Your task to perform on an android device: toggle notification dots Image 0: 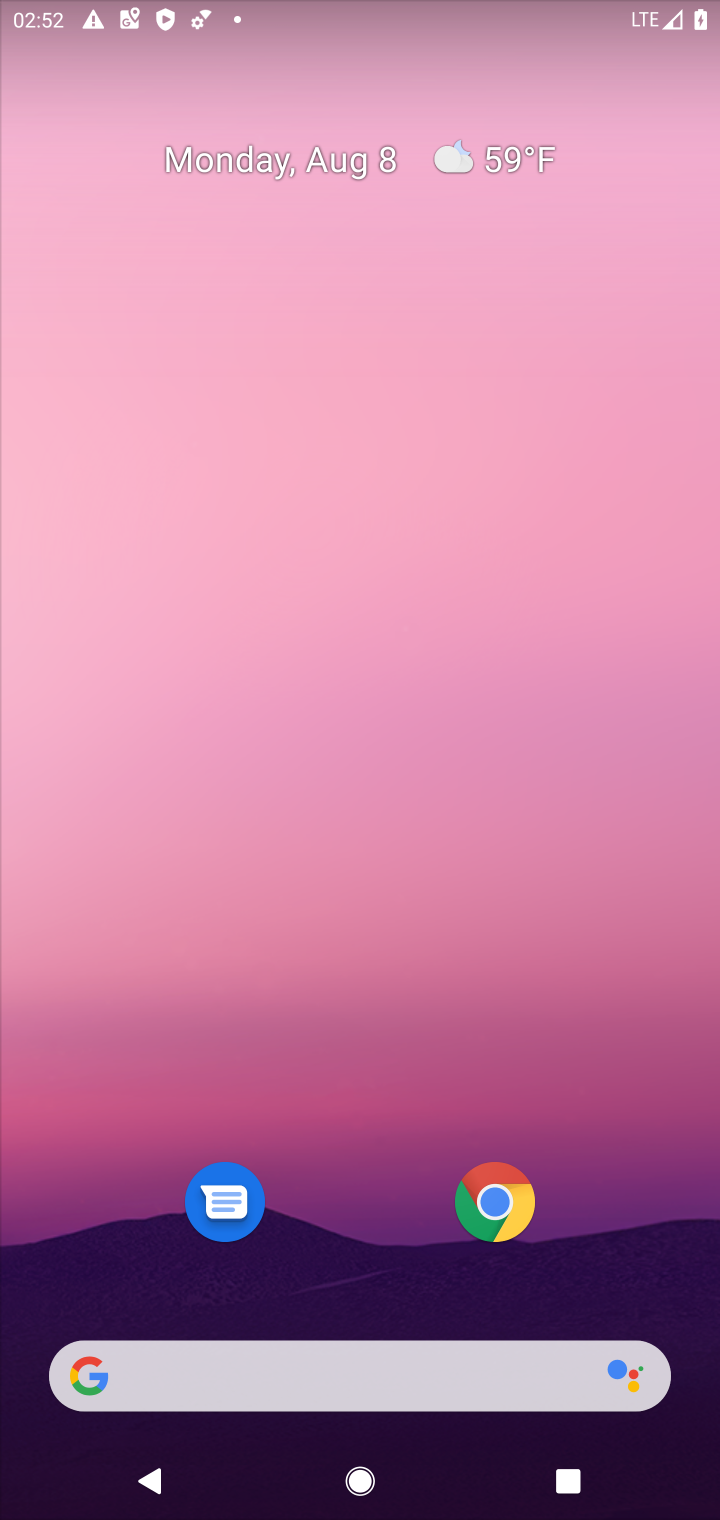
Step 0: drag from (328, 1093) to (384, 366)
Your task to perform on an android device: toggle notification dots Image 1: 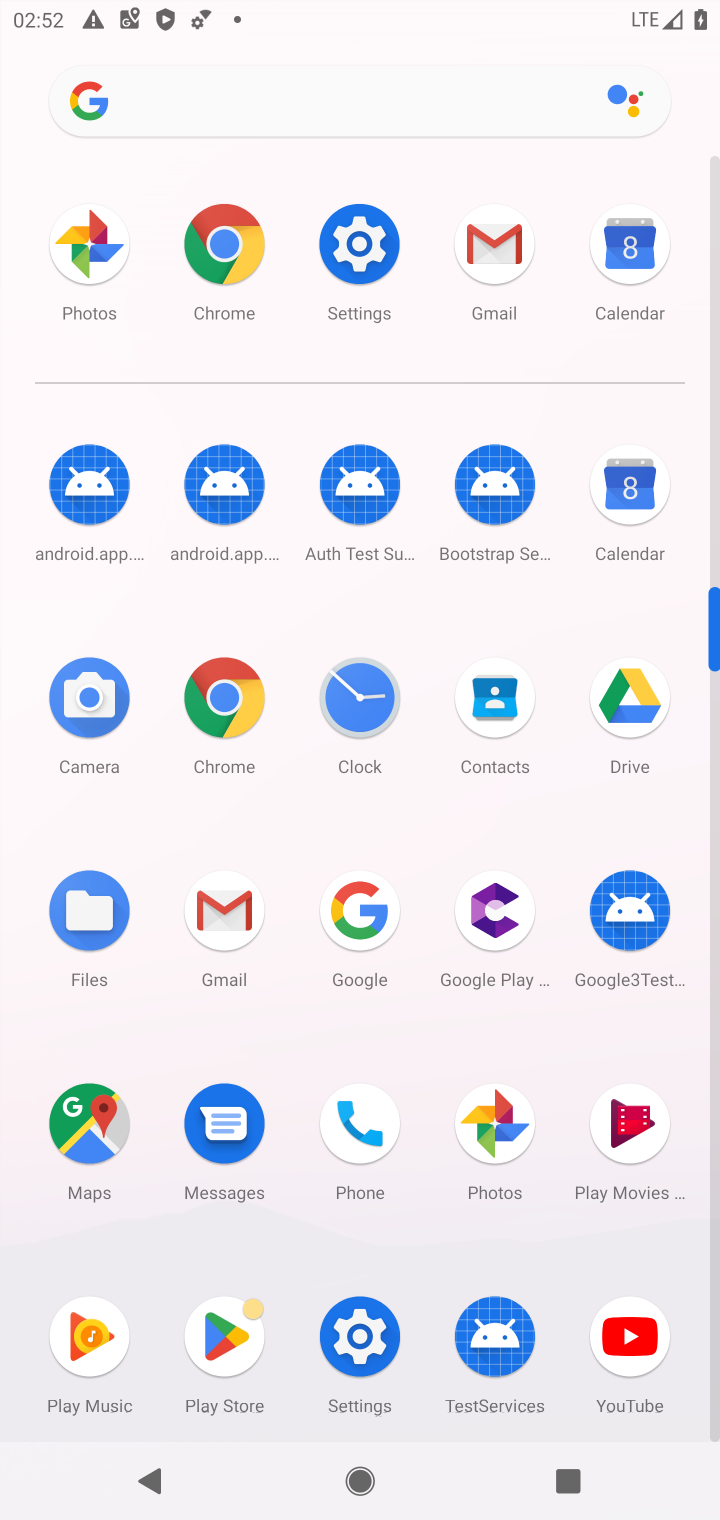
Step 1: click (360, 1330)
Your task to perform on an android device: toggle notification dots Image 2: 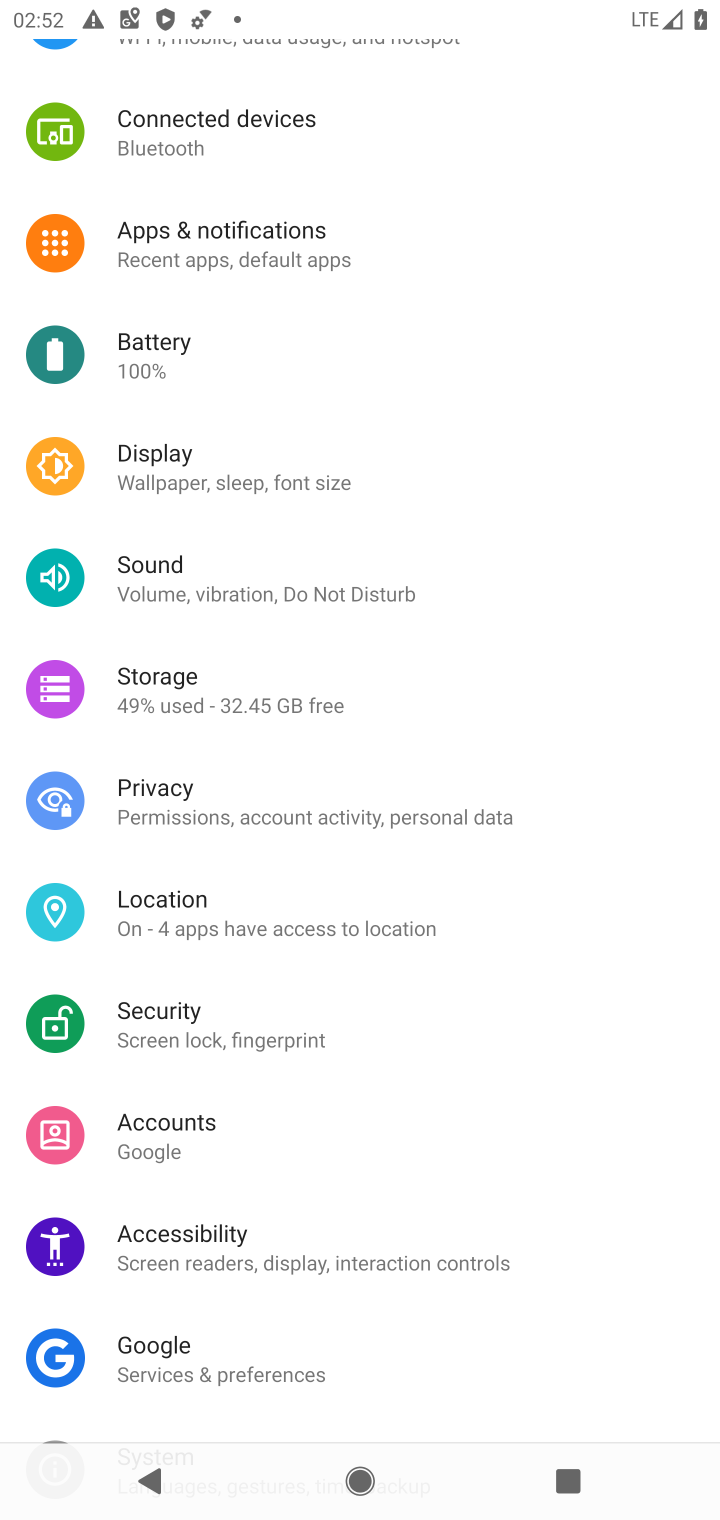
Step 2: click (174, 253)
Your task to perform on an android device: toggle notification dots Image 3: 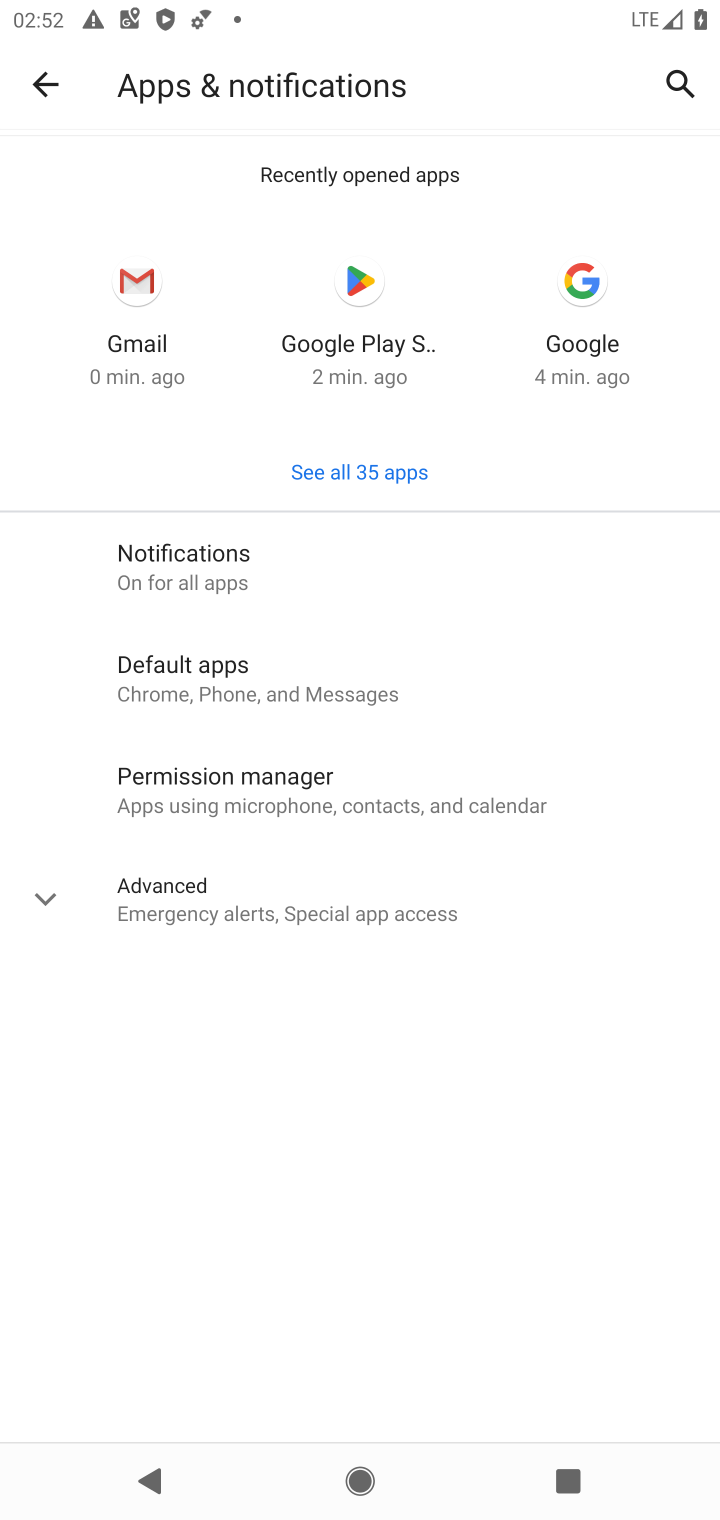
Step 3: click (175, 559)
Your task to perform on an android device: toggle notification dots Image 4: 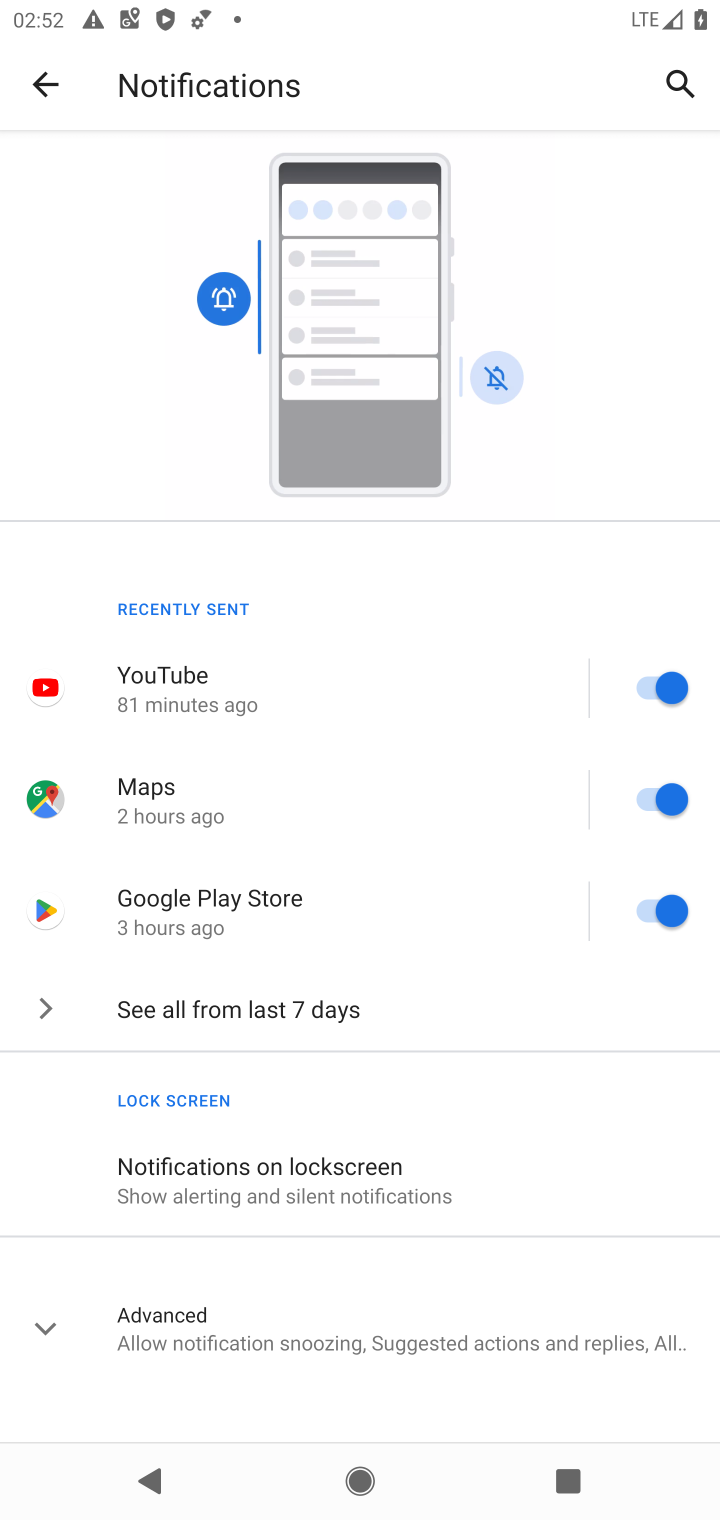
Step 4: click (253, 1326)
Your task to perform on an android device: toggle notification dots Image 5: 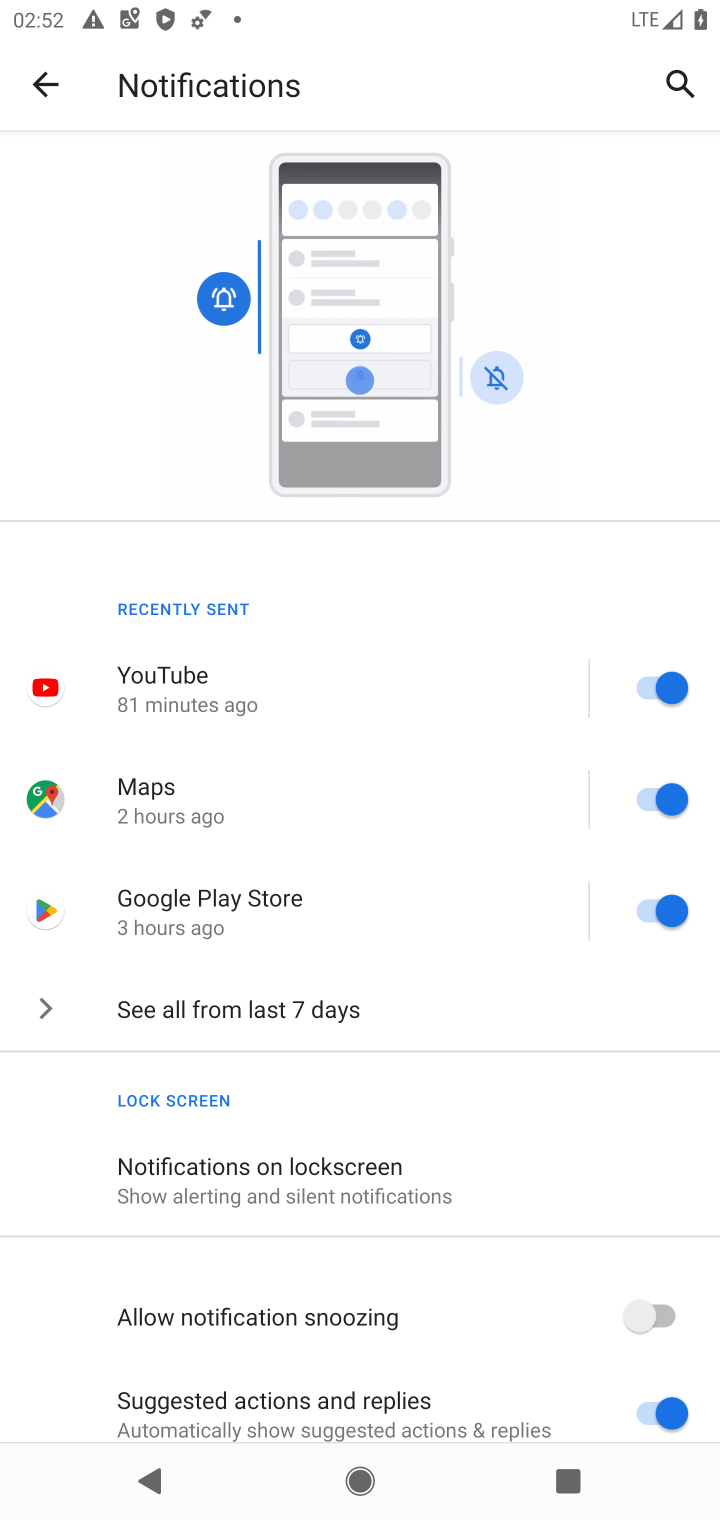
Step 5: drag from (395, 1181) to (395, 972)
Your task to perform on an android device: toggle notification dots Image 6: 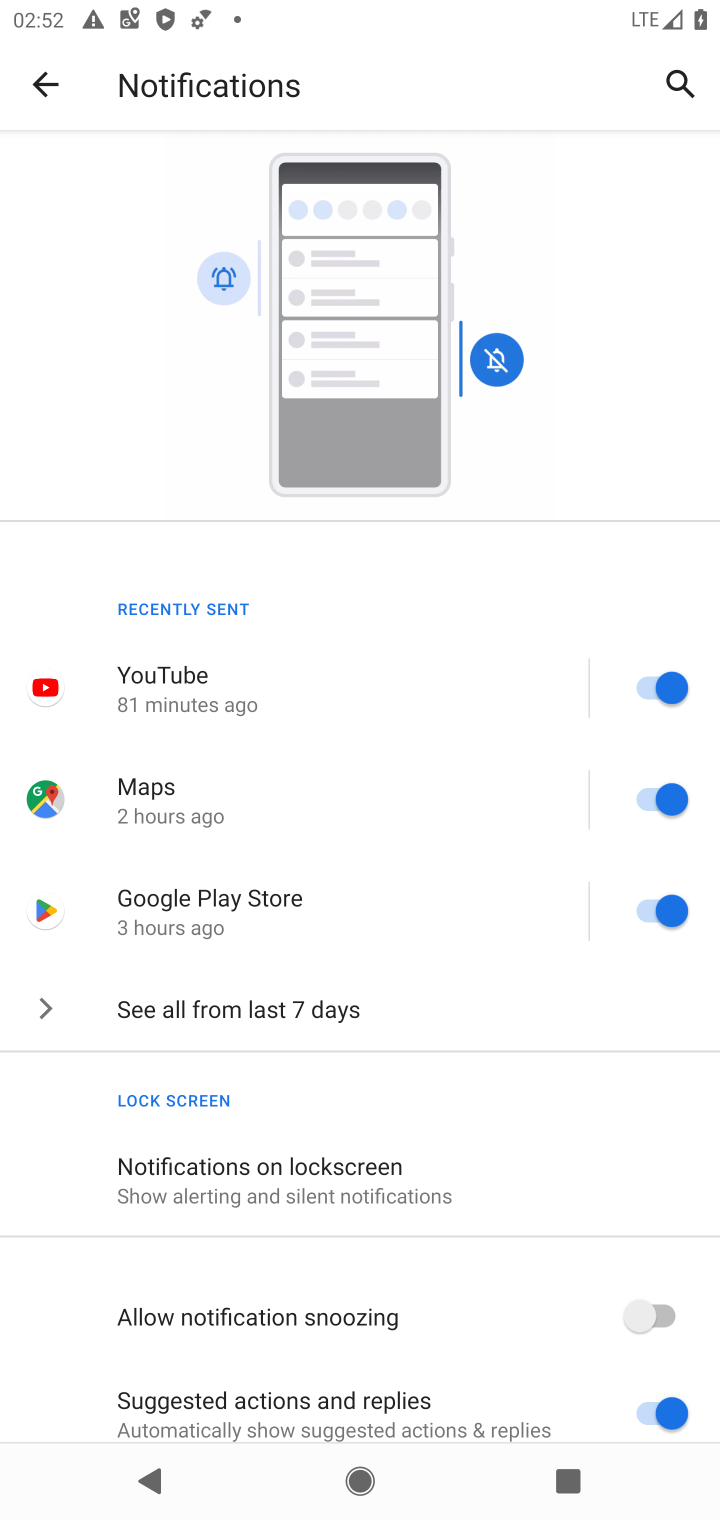
Step 6: drag from (440, 1005) to (464, 922)
Your task to perform on an android device: toggle notification dots Image 7: 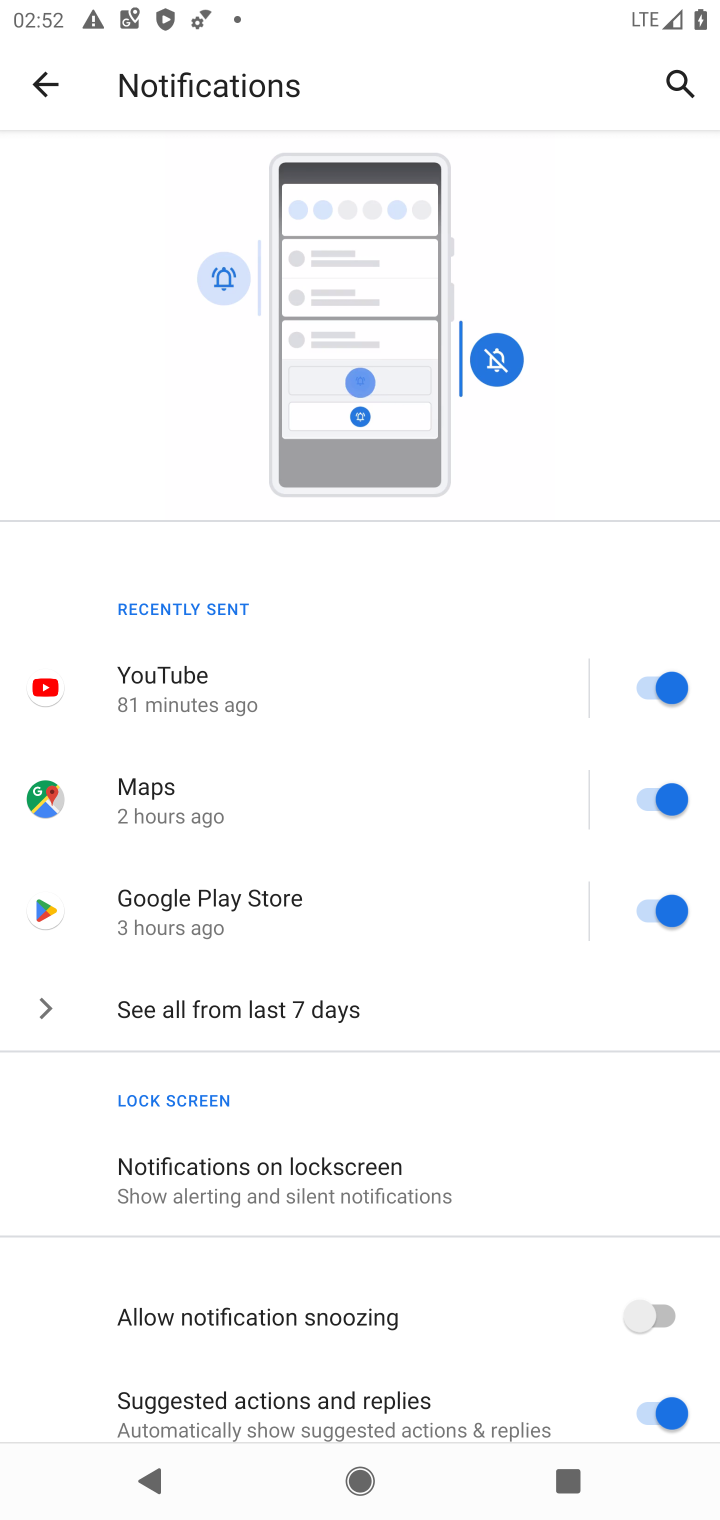
Step 7: drag from (229, 1264) to (293, 736)
Your task to perform on an android device: toggle notification dots Image 8: 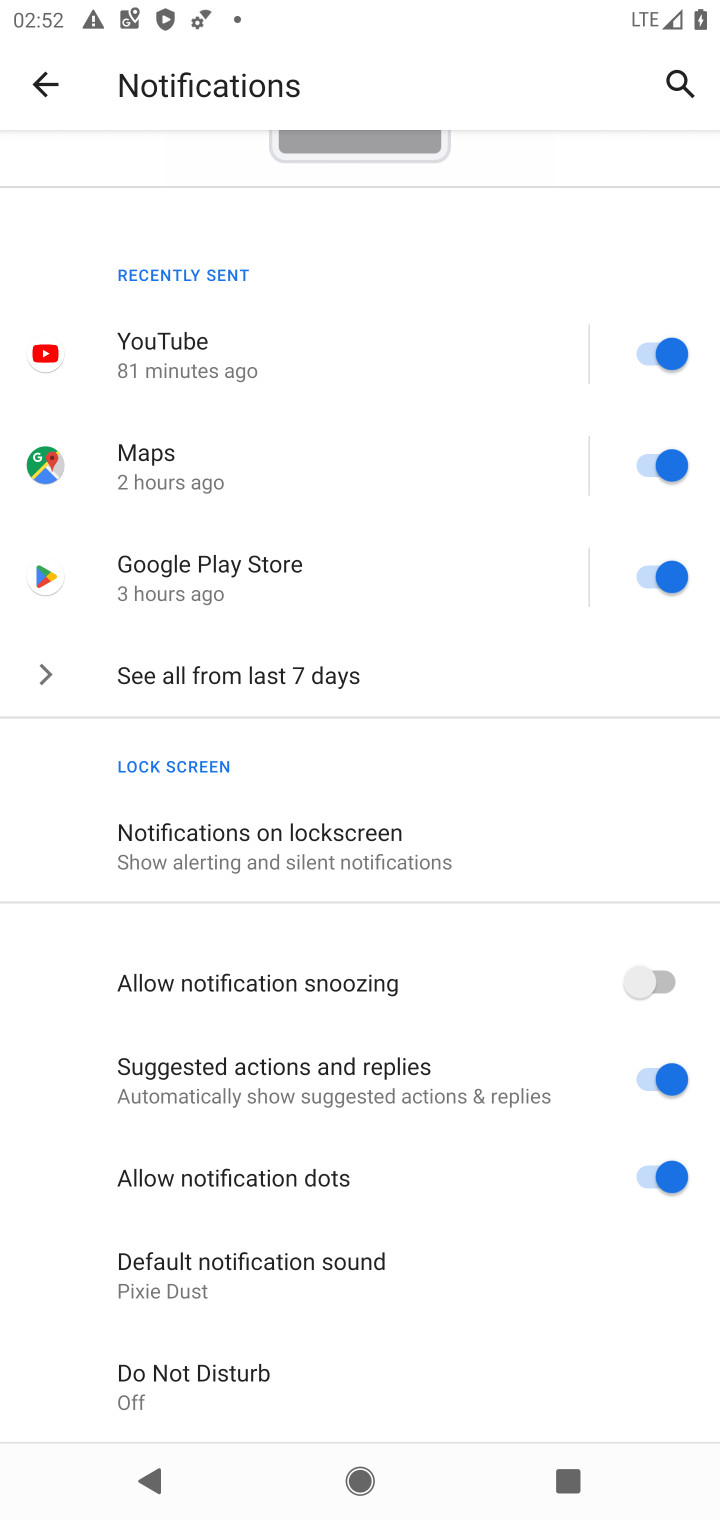
Step 8: click (650, 1181)
Your task to perform on an android device: toggle notification dots Image 9: 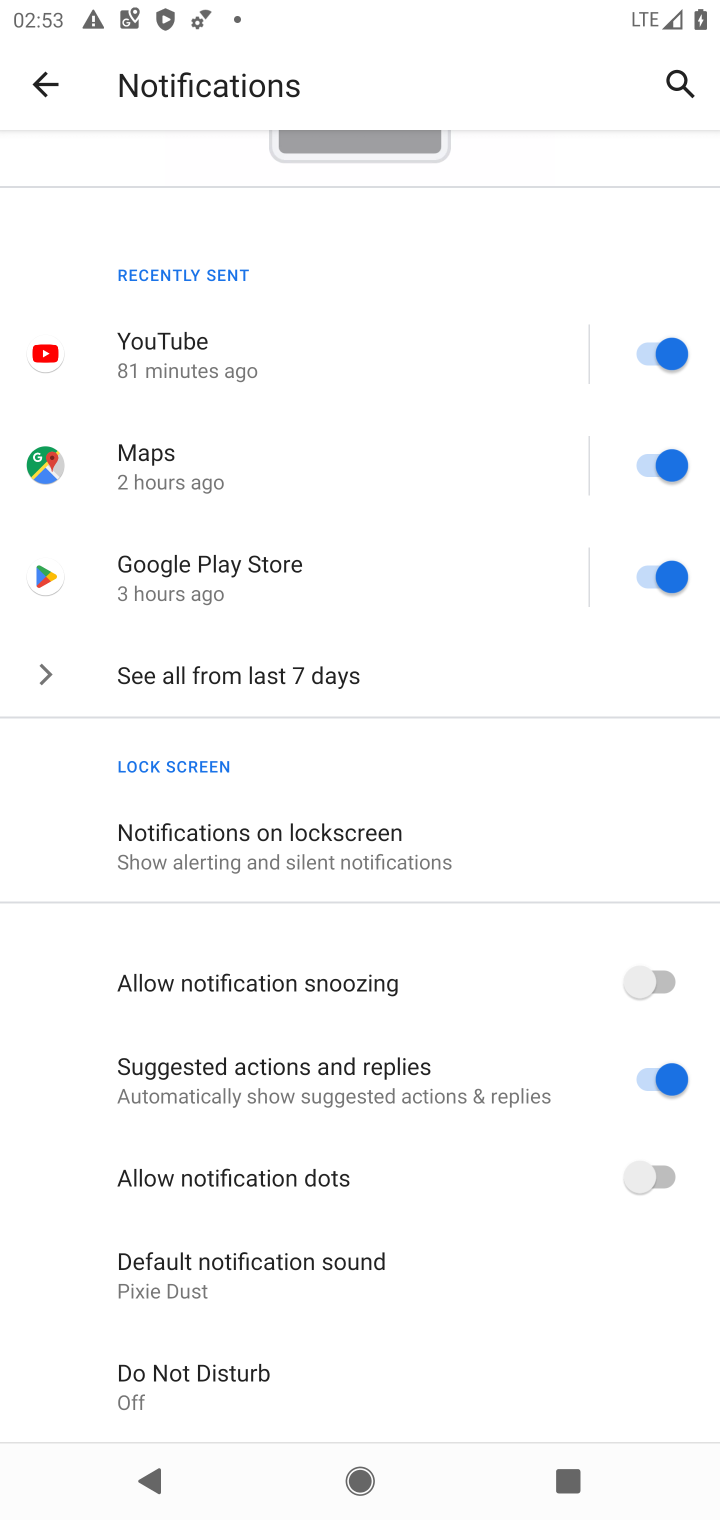
Step 9: task complete